Your task to perform on an android device: delete browsing data in the chrome app Image 0: 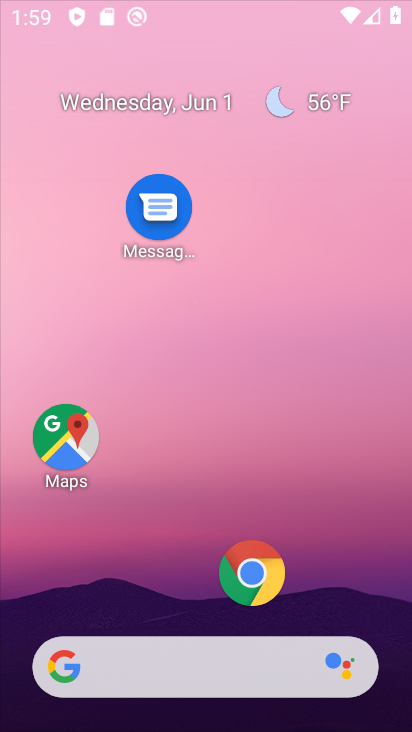
Step 0: drag from (197, 597) to (192, 91)
Your task to perform on an android device: delete browsing data in the chrome app Image 1: 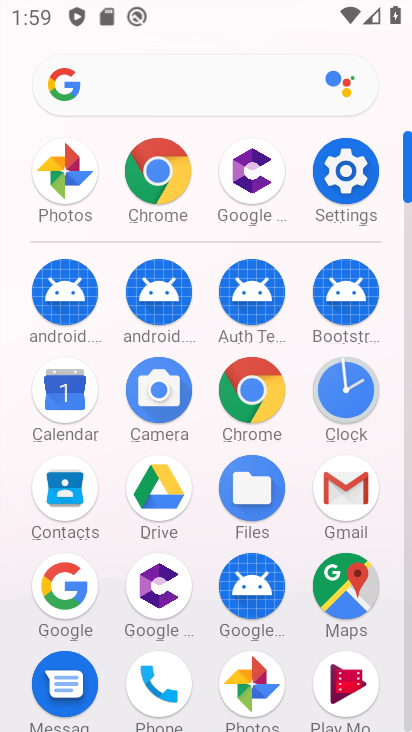
Step 1: click (253, 381)
Your task to perform on an android device: delete browsing data in the chrome app Image 2: 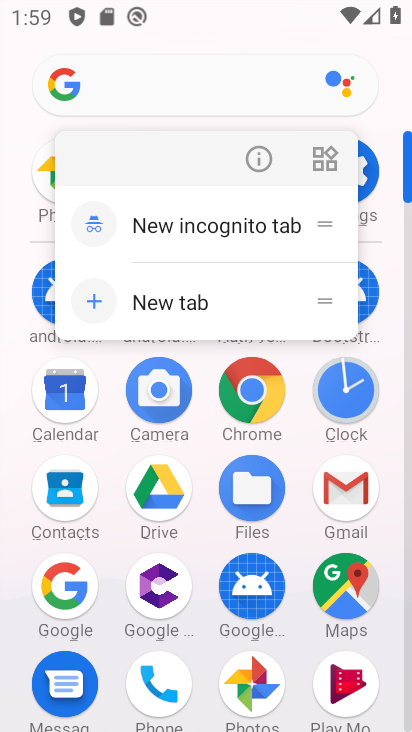
Step 2: click (259, 166)
Your task to perform on an android device: delete browsing data in the chrome app Image 3: 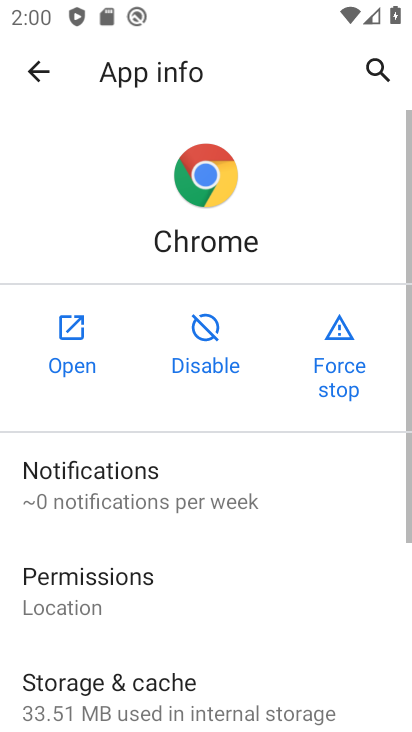
Step 3: click (74, 315)
Your task to perform on an android device: delete browsing data in the chrome app Image 4: 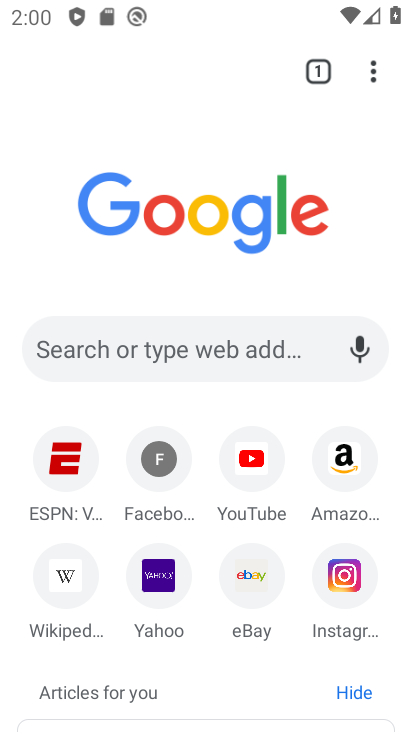
Step 4: drag from (367, 65) to (148, 417)
Your task to perform on an android device: delete browsing data in the chrome app Image 5: 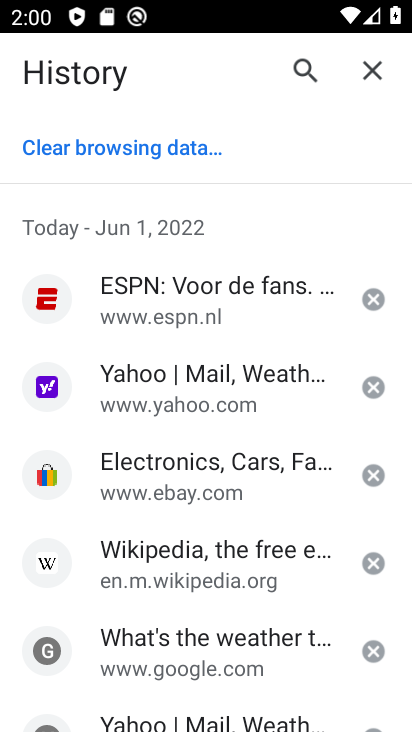
Step 5: drag from (224, 381) to (235, 294)
Your task to perform on an android device: delete browsing data in the chrome app Image 6: 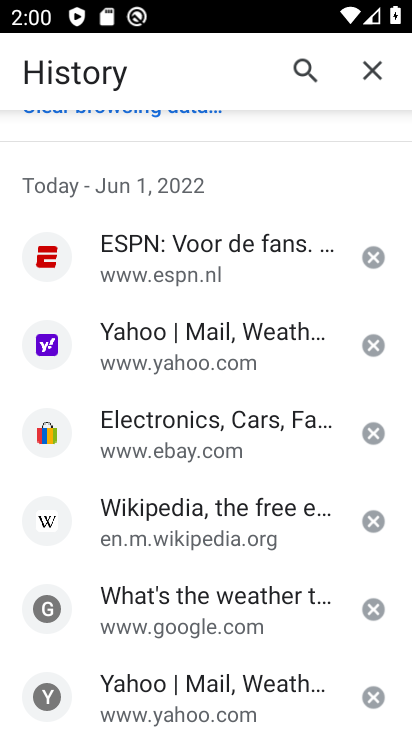
Step 6: drag from (222, 242) to (270, 648)
Your task to perform on an android device: delete browsing data in the chrome app Image 7: 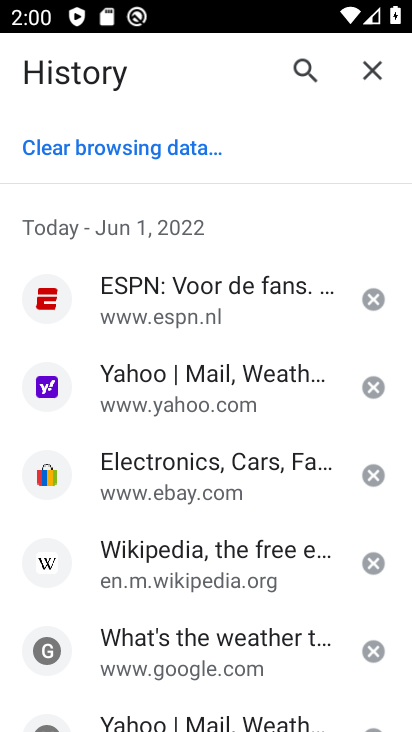
Step 7: click (43, 149)
Your task to perform on an android device: delete browsing data in the chrome app Image 8: 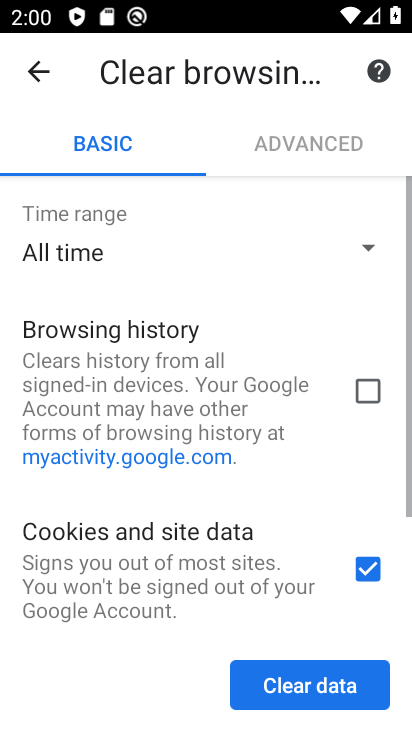
Step 8: click (292, 234)
Your task to perform on an android device: delete browsing data in the chrome app Image 9: 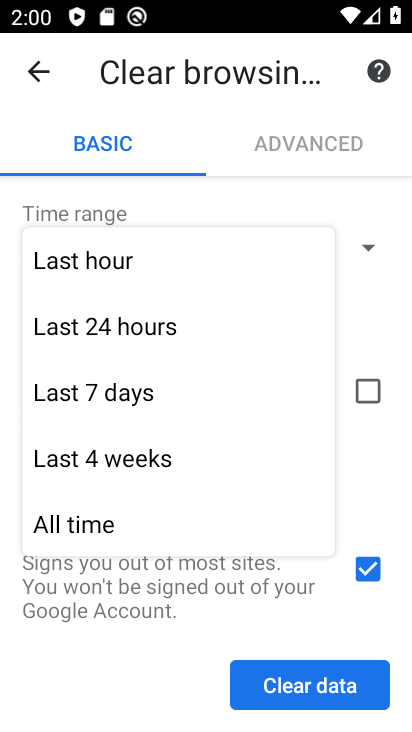
Step 9: click (291, 236)
Your task to perform on an android device: delete browsing data in the chrome app Image 10: 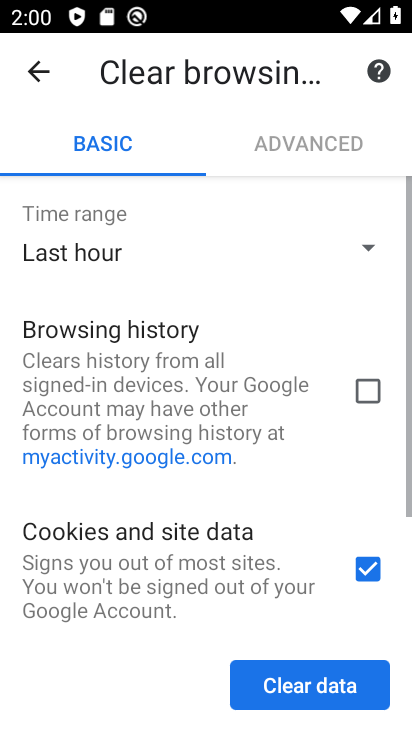
Step 10: click (201, 257)
Your task to perform on an android device: delete browsing data in the chrome app Image 11: 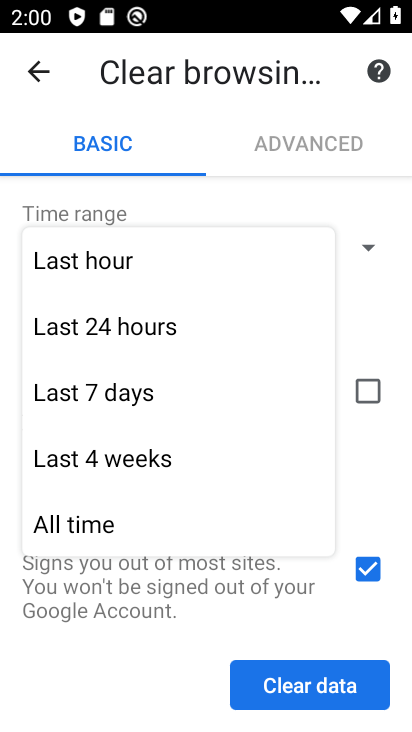
Step 11: click (79, 510)
Your task to perform on an android device: delete browsing data in the chrome app Image 12: 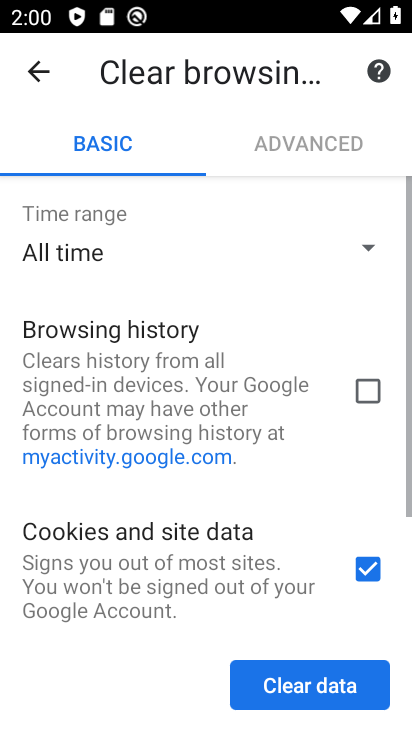
Step 12: click (289, 681)
Your task to perform on an android device: delete browsing data in the chrome app Image 13: 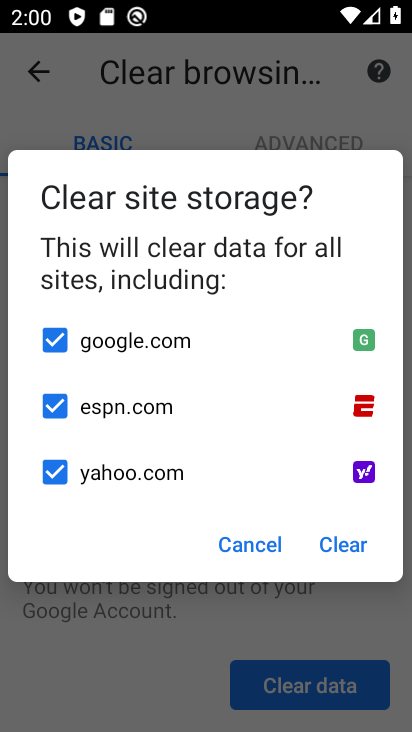
Step 13: task complete